Your task to perform on an android device: Show me the alarms in the clock app Image 0: 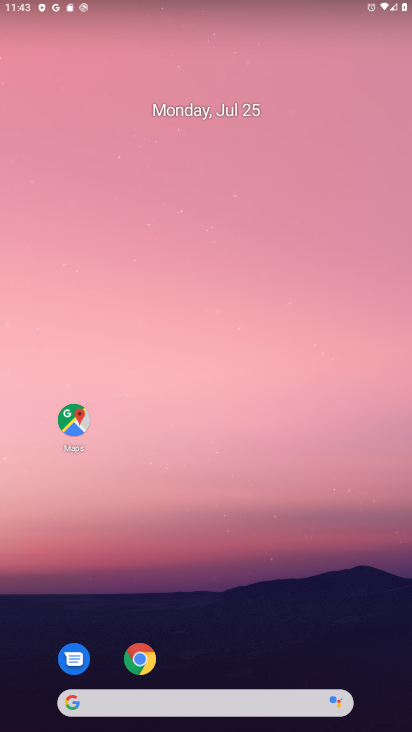
Step 0: drag from (247, 614) to (195, 82)
Your task to perform on an android device: Show me the alarms in the clock app Image 1: 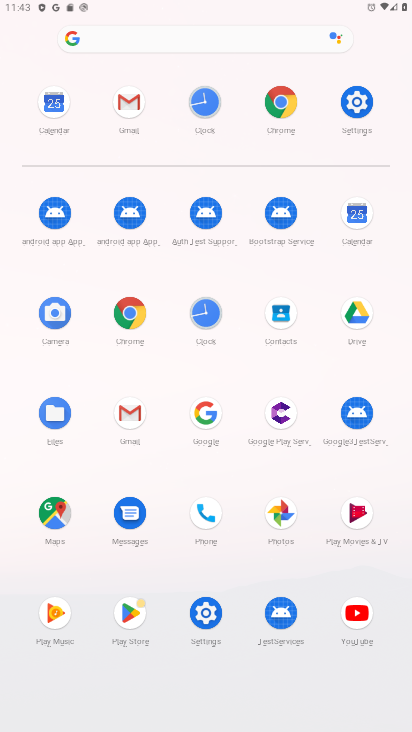
Step 1: click (206, 319)
Your task to perform on an android device: Show me the alarms in the clock app Image 2: 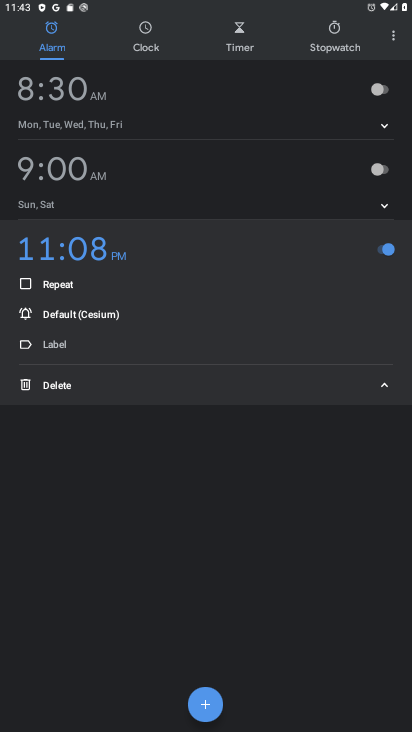
Step 2: click (55, 49)
Your task to perform on an android device: Show me the alarms in the clock app Image 3: 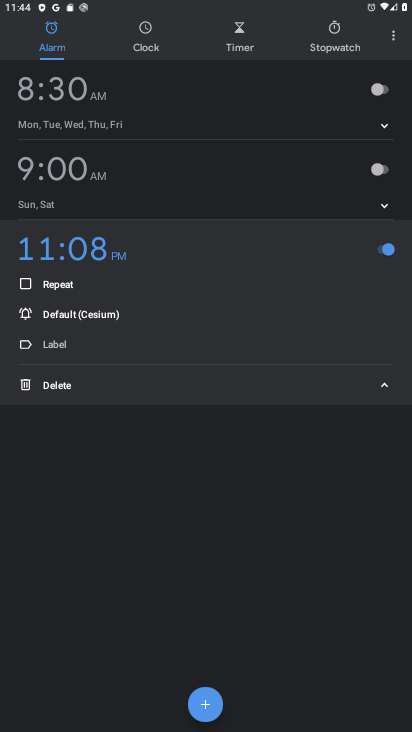
Step 3: task complete